Your task to perform on an android device: Is it going to rain today? Image 0: 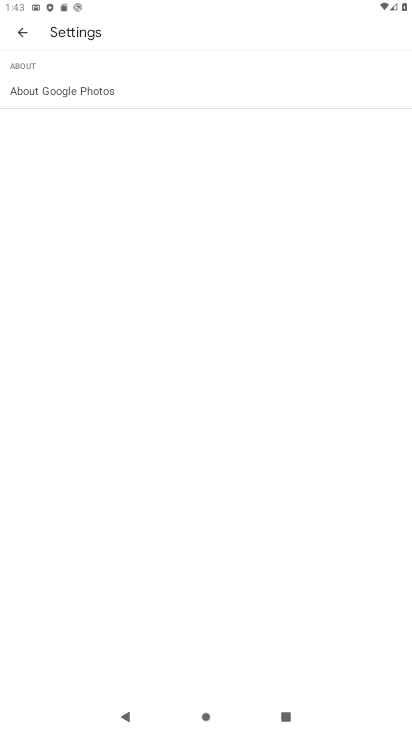
Step 0: press home button
Your task to perform on an android device: Is it going to rain today? Image 1: 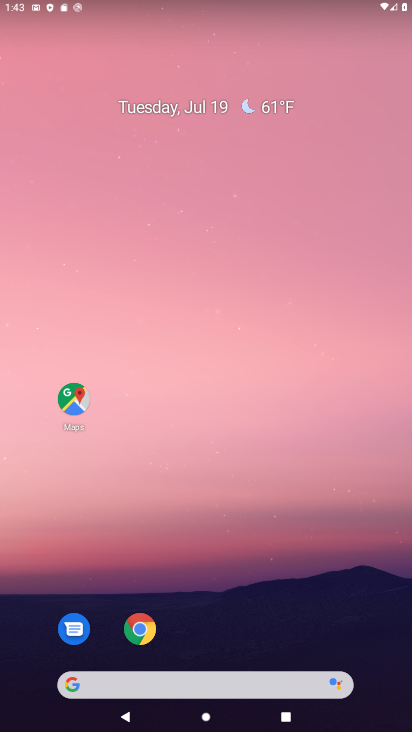
Step 1: click (251, 107)
Your task to perform on an android device: Is it going to rain today? Image 2: 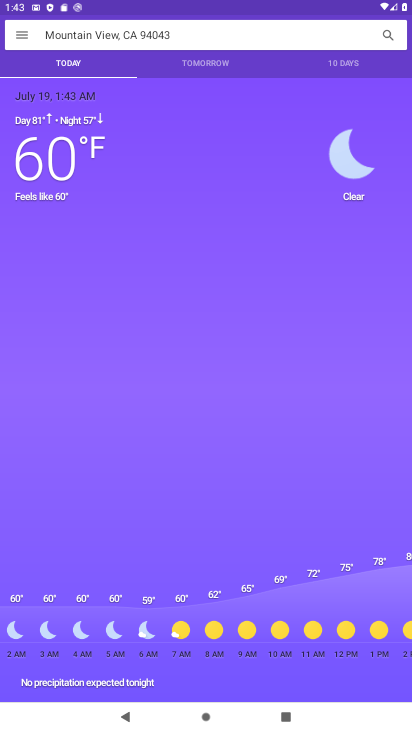
Step 2: task complete